Your task to perform on an android device: Go to network settings Image 0: 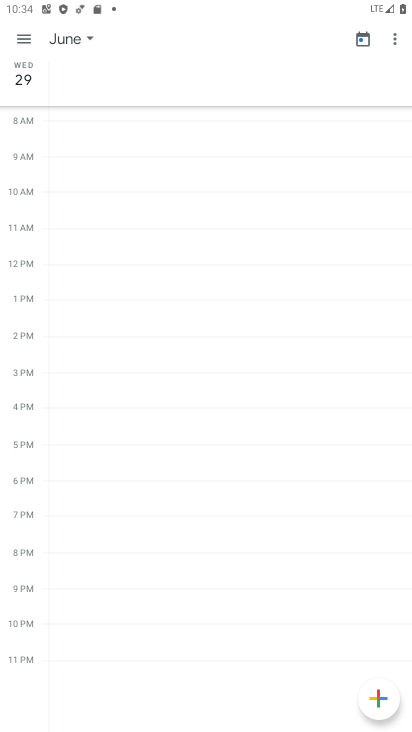
Step 0: press home button
Your task to perform on an android device: Go to network settings Image 1: 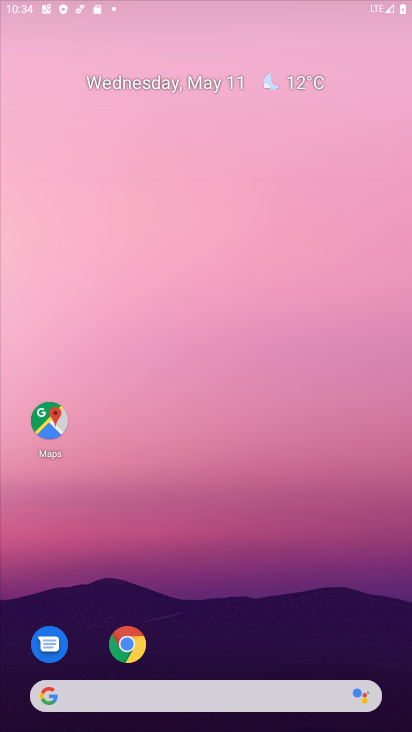
Step 1: drag from (206, 616) to (300, 258)
Your task to perform on an android device: Go to network settings Image 2: 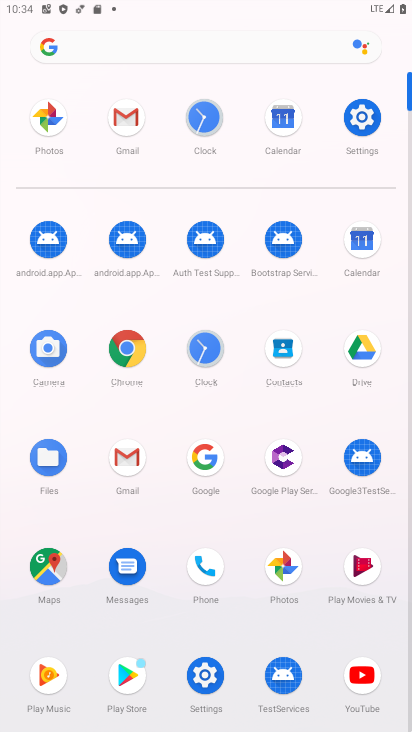
Step 2: click (387, 120)
Your task to perform on an android device: Go to network settings Image 3: 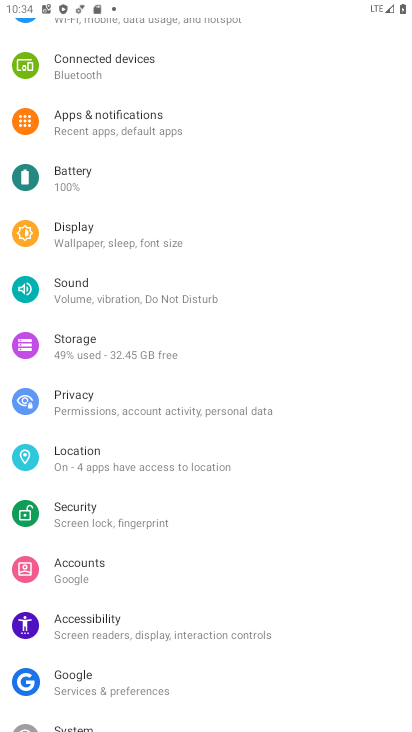
Step 3: drag from (165, 141) to (162, 407)
Your task to perform on an android device: Go to network settings Image 4: 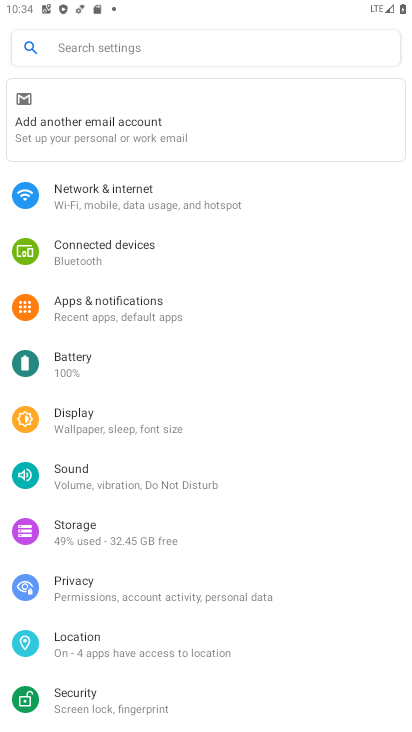
Step 4: click (173, 211)
Your task to perform on an android device: Go to network settings Image 5: 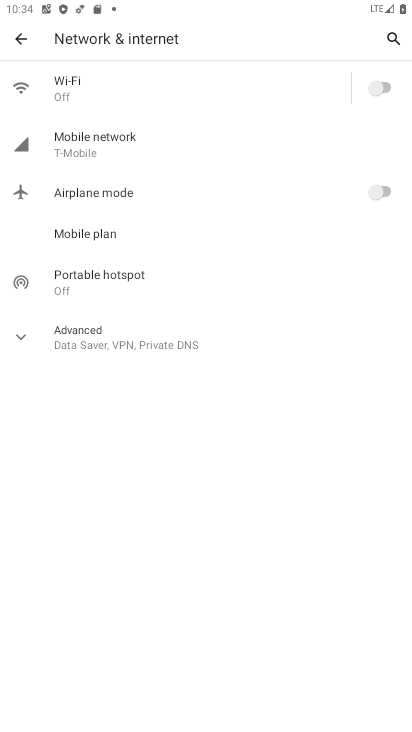
Step 5: task complete